Your task to perform on an android device: empty trash in the gmail app Image 0: 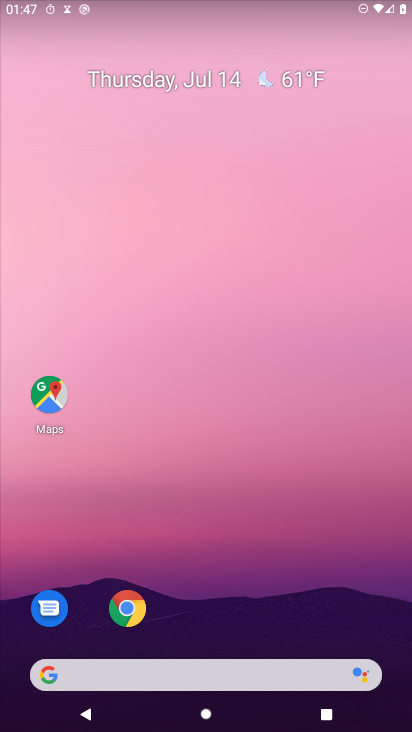
Step 0: press home button
Your task to perform on an android device: empty trash in the gmail app Image 1: 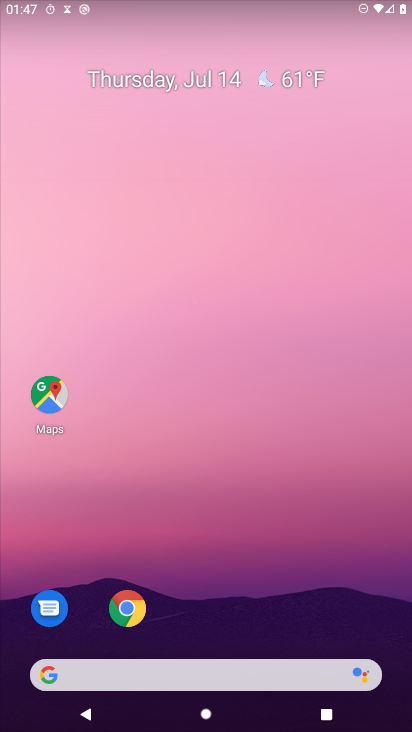
Step 1: click (245, 98)
Your task to perform on an android device: empty trash in the gmail app Image 2: 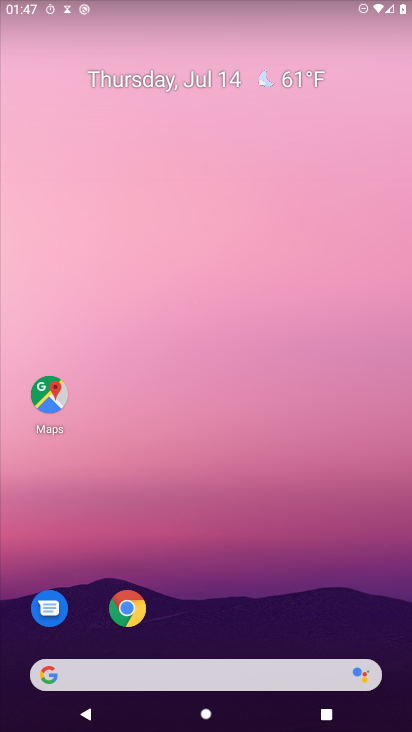
Step 2: drag from (232, 617) to (410, 120)
Your task to perform on an android device: empty trash in the gmail app Image 3: 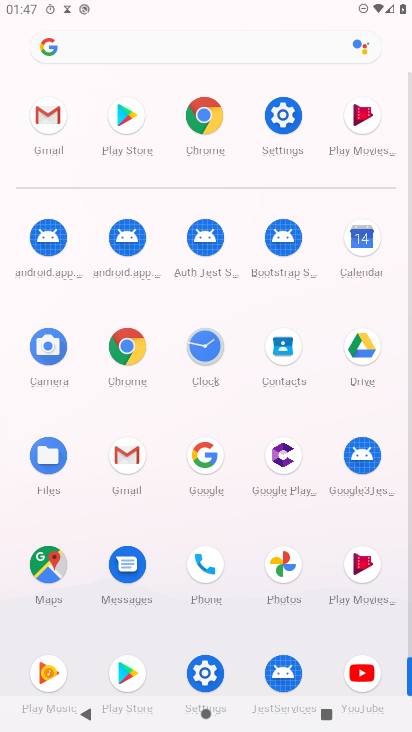
Step 3: click (42, 117)
Your task to perform on an android device: empty trash in the gmail app Image 4: 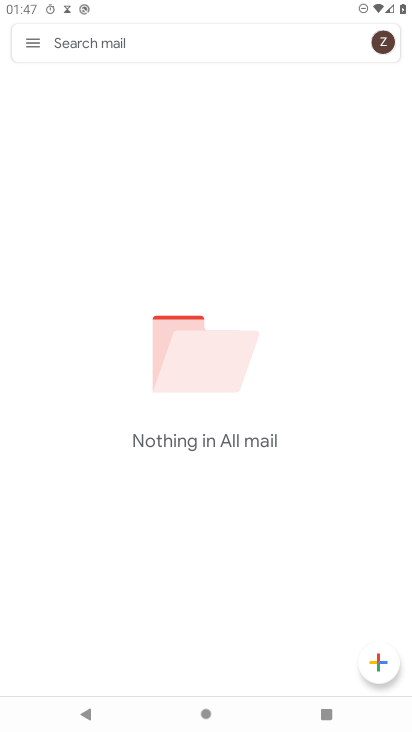
Step 4: click (39, 44)
Your task to perform on an android device: empty trash in the gmail app Image 5: 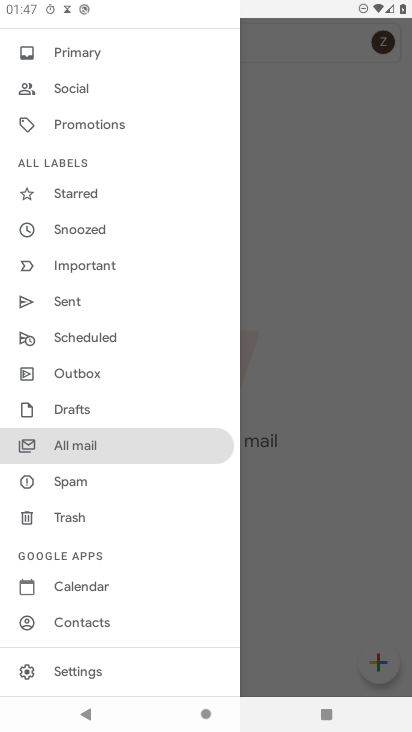
Step 5: click (78, 519)
Your task to perform on an android device: empty trash in the gmail app Image 6: 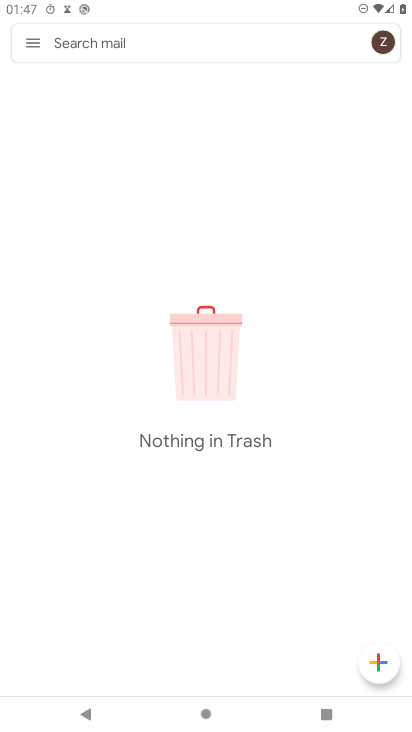
Step 6: task complete